Your task to perform on an android device: Open eBay Image 0: 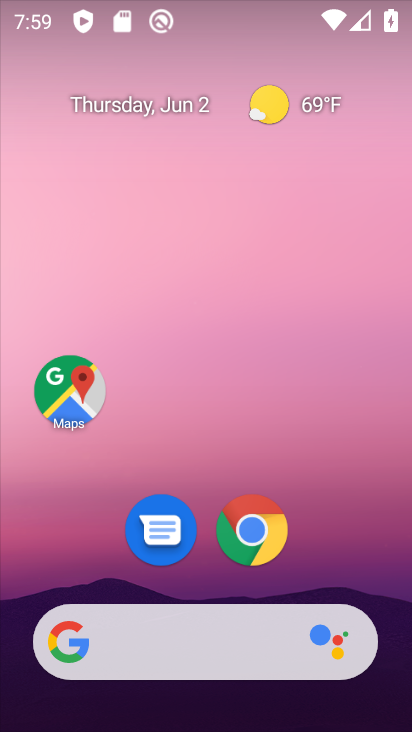
Step 0: click (250, 522)
Your task to perform on an android device: Open eBay Image 1: 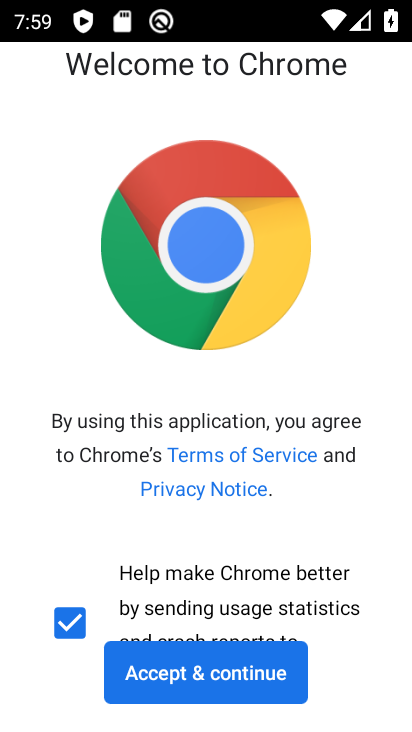
Step 1: click (201, 655)
Your task to perform on an android device: Open eBay Image 2: 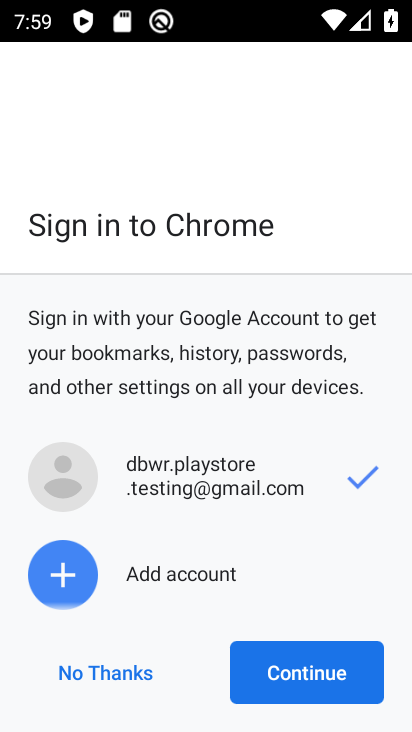
Step 2: click (279, 663)
Your task to perform on an android device: Open eBay Image 3: 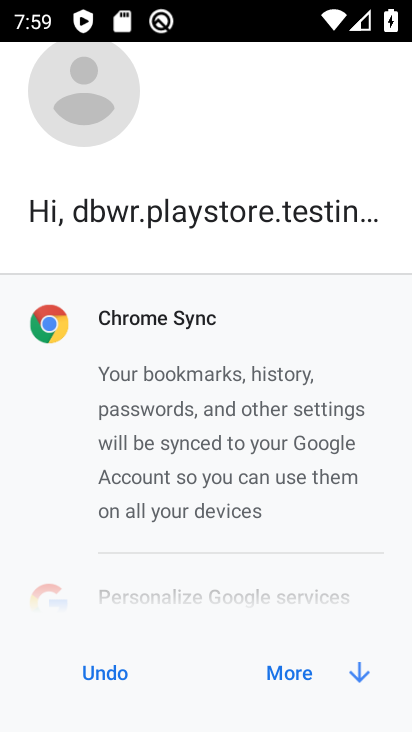
Step 3: click (285, 680)
Your task to perform on an android device: Open eBay Image 4: 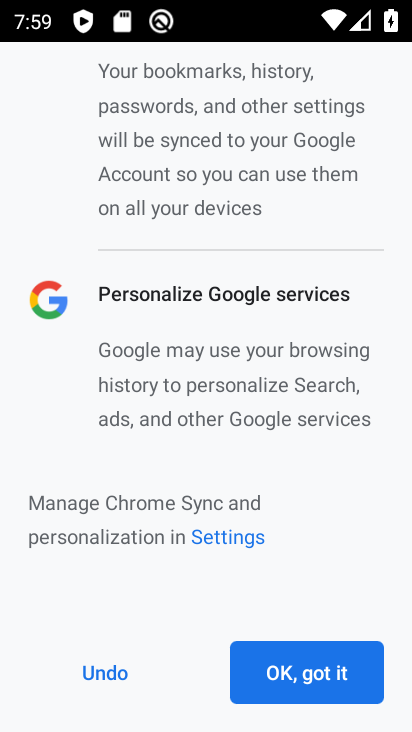
Step 4: click (282, 680)
Your task to perform on an android device: Open eBay Image 5: 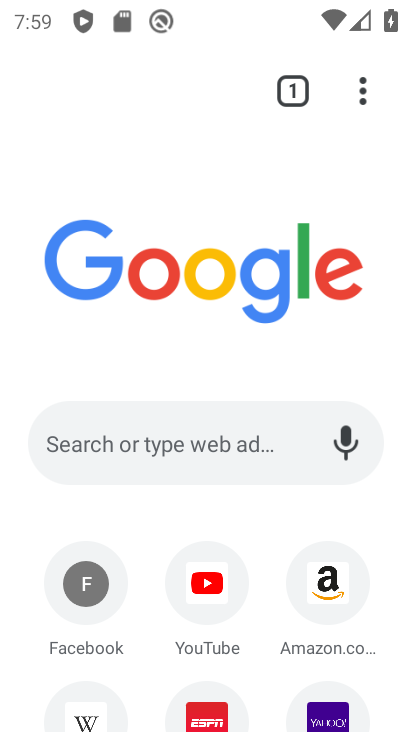
Step 5: click (181, 444)
Your task to perform on an android device: Open eBay Image 6: 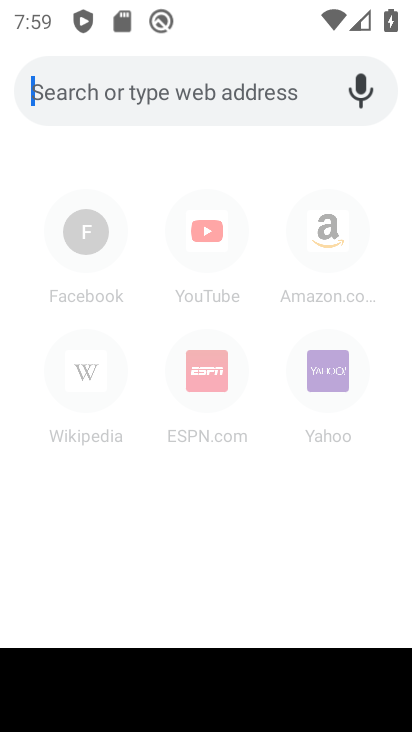
Step 6: type "ebay"
Your task to perform on an android device: Open eBay Image 7: 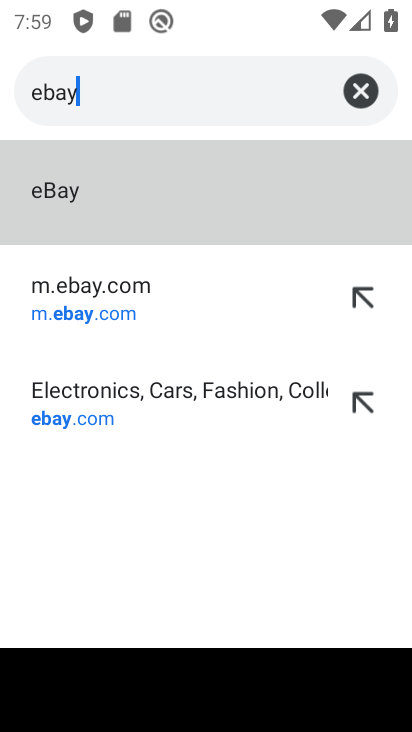
Step 7: type ""
Your task to perform on an android device: Open eBay Image 8: 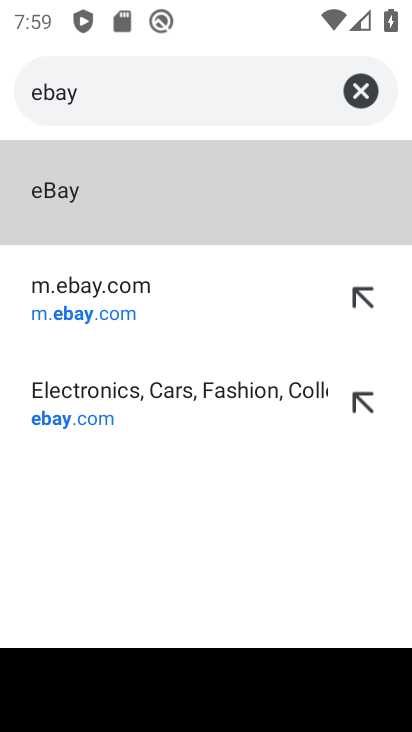
Step 8: click (69, 325)
Your task to perform on an android device: Open eBay Image 9: 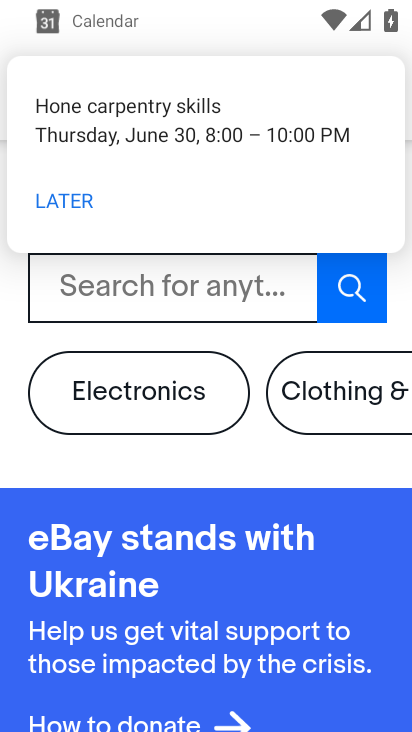
Step 9: task complete